Your task to perform on an android device: install app "Adobe Acrobat Reader: Edit PDF" Image 0: 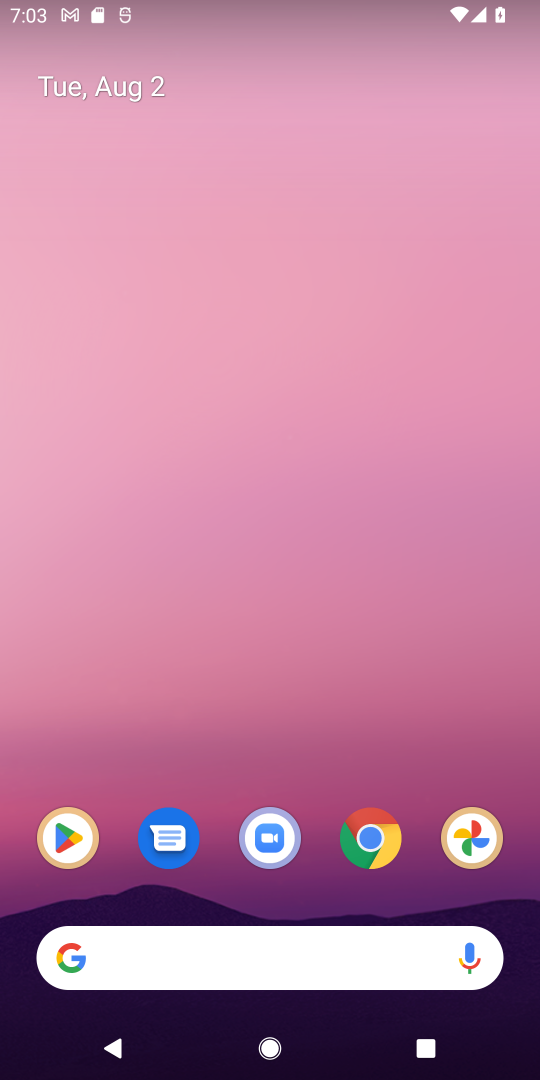
Step 0: click (71, 842)
Your task to perform on an android device: install app "Adobe Acrobat Reader: Edit PDF" Image 1: 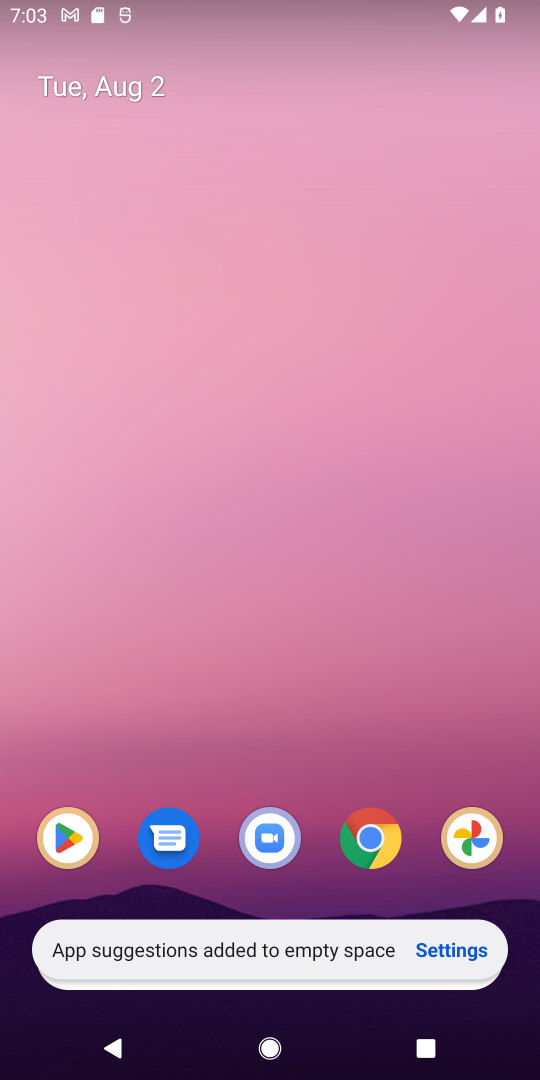
Step 1: click (75, 851)
Your task to perform on an android device: install app "Adobe Acrobat Reader: Edit PDF" Image 2: 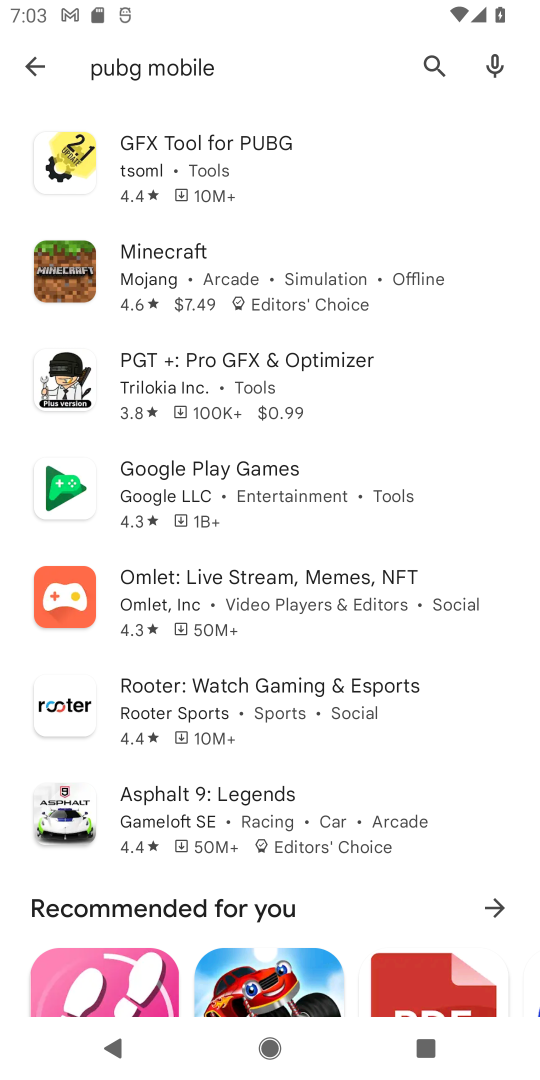
Step 2: click (424, 66)
Your task to perform on an android device: install app "Adobe Acrobat Reader: Edit PDF" Image 3: 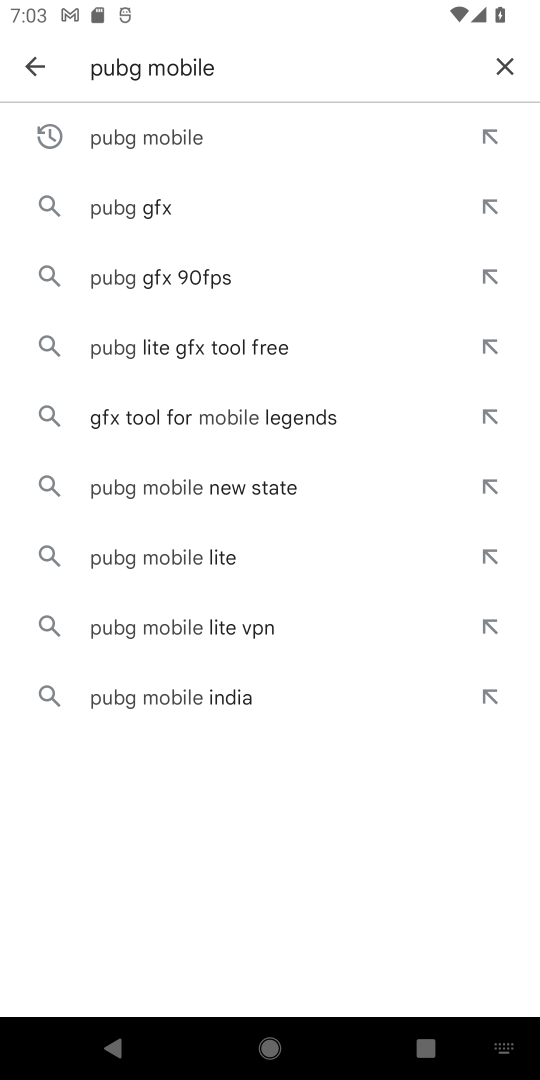
Step 3: click (511, 57)
Your task to perform on an android device: install app "Adobe Acrobat Reader: Edit PDF" Image 4: 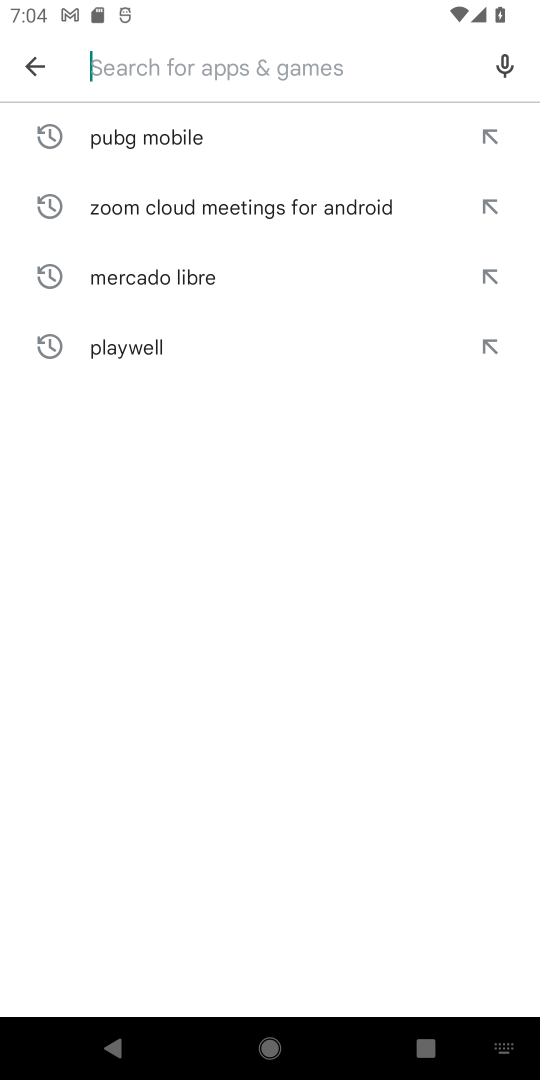
Step 4: type "adobe acrobat reader: edit pdf"
Your task to perform on an android device: install app "Adobe Acrobat Reader: Edit PDF" Image 5: 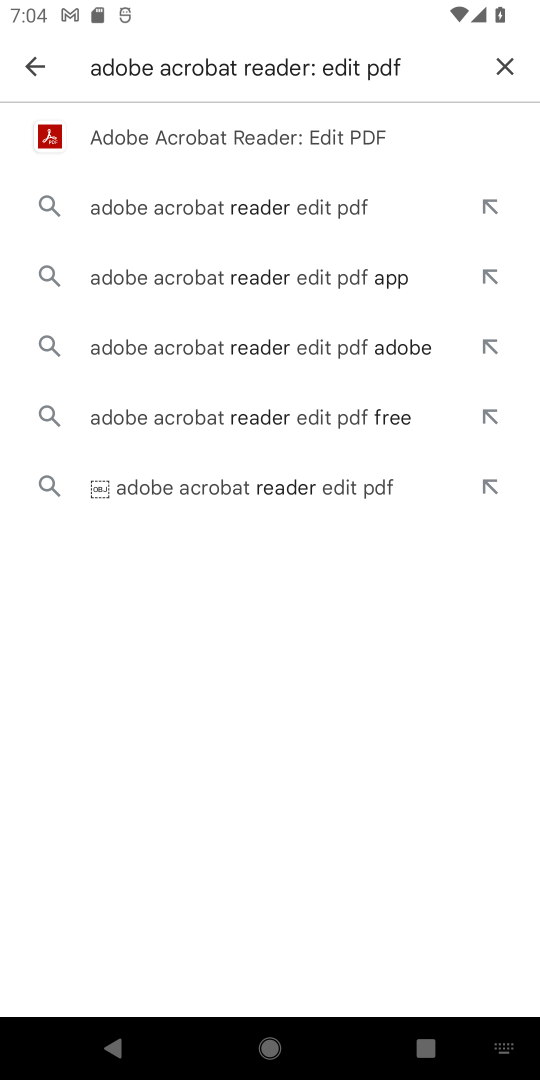
Step 5: click (439, 134)
Your task to perform on an android device: install app "Adobe Acrobat Reader: Edit PDF" Image 6: 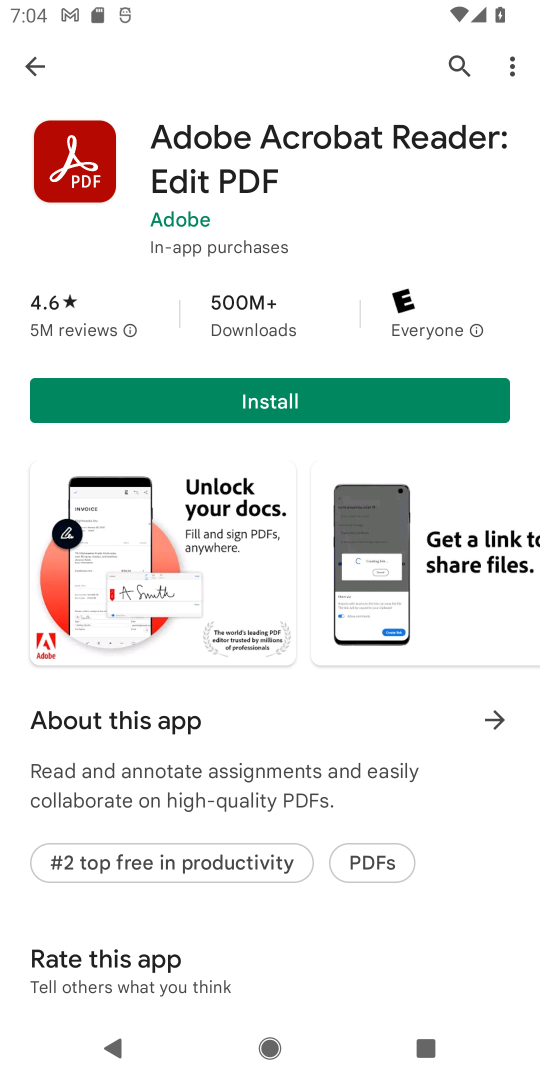
Step 6: click (299, 387)
Your task to perform on an android device: install app "Adobe Acrobat Reader: Edit PDF" Image 7: 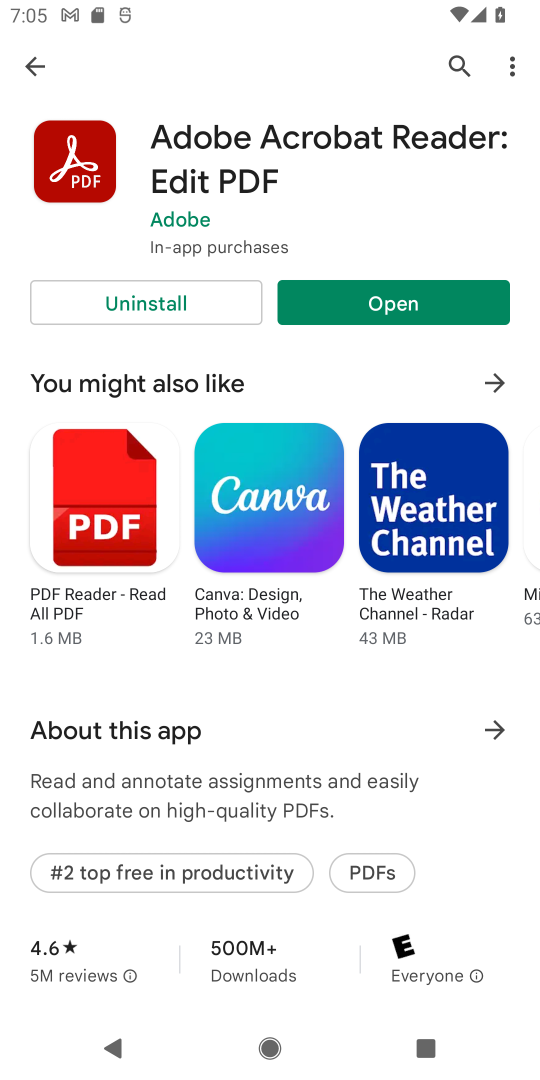
Step 7: task complete